Your task to perform on an android device: What is the news today? Image 0: 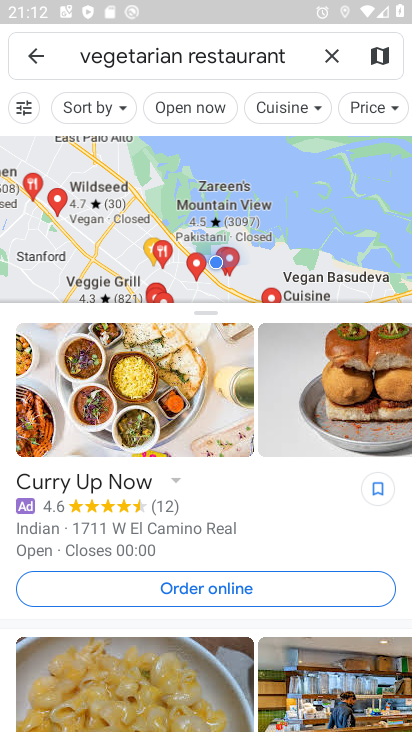
Step 0: press home button
Your task to perform on an android device: What is the news today? Image 1: 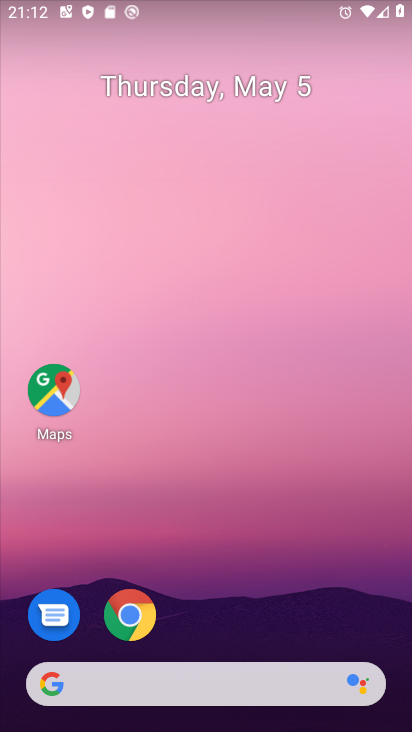
Step 1: click (193, 694)
Your task to perform on an android device: What is the news today? Image 2: 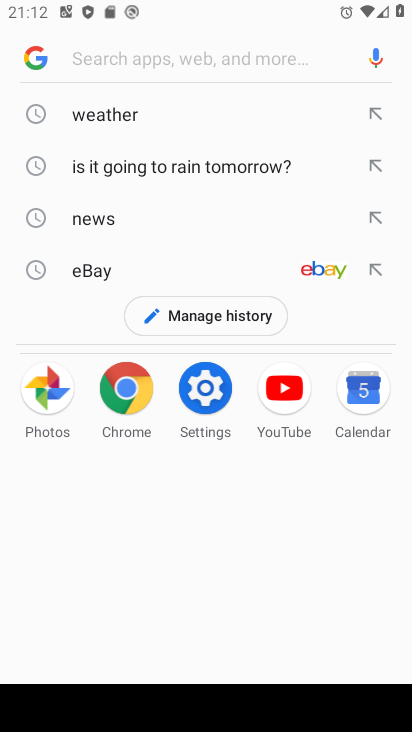
Step 2: type "news today"
Your task to perform on an android device: What is the news today? Image 3: 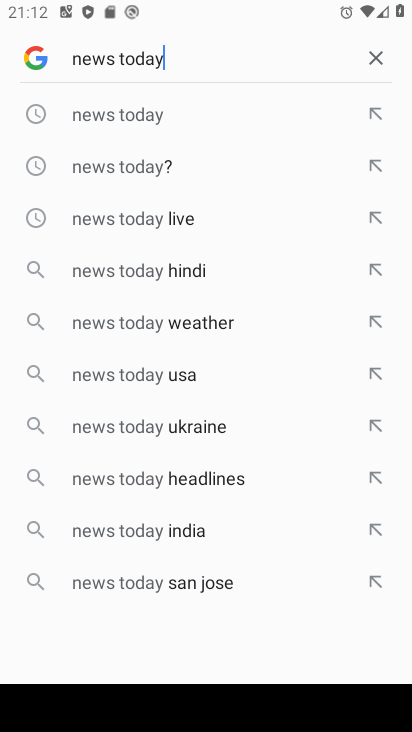
Step 3: click (152, 186)
Your task to perform on an android device: What is the news today? Image 4: 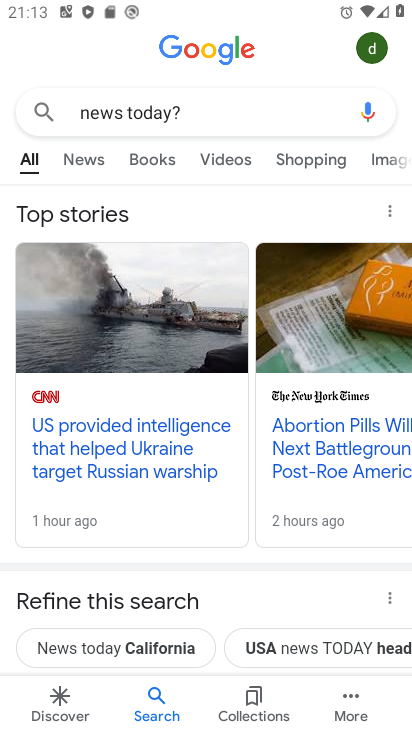
Step 4: task complete